Your task to perform on an android device: Go to location settings Image 0: 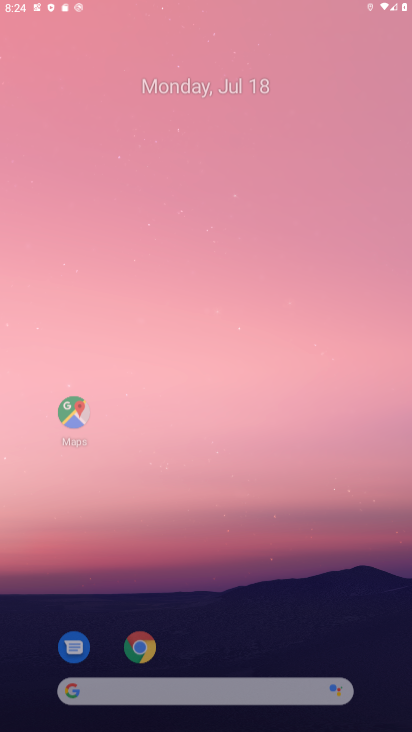
Step 0: press back button
Your task to perform on an android device: Go to location settings Image 1: 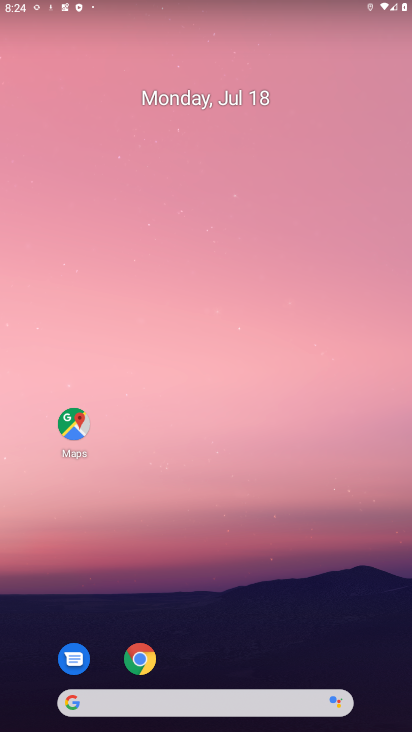
Step 1: drag from (237, 639) to (153, 340)
Your task to perform on an android device: Go to location settings Image 2: 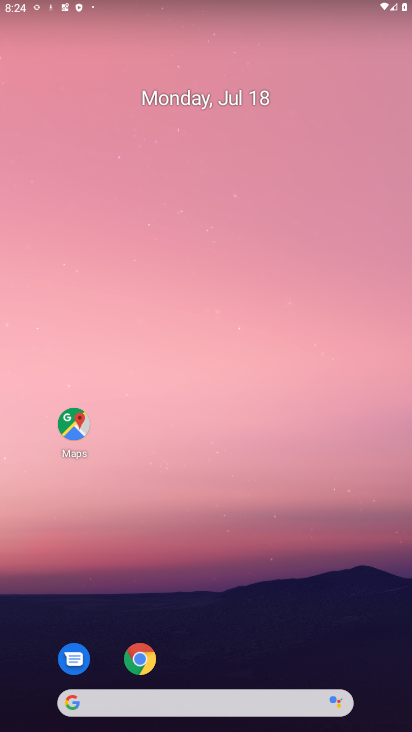
Step 2: drag from (226, 650) to (152, 224)
Your task to perform on an android device: Go to location settings Image 3: 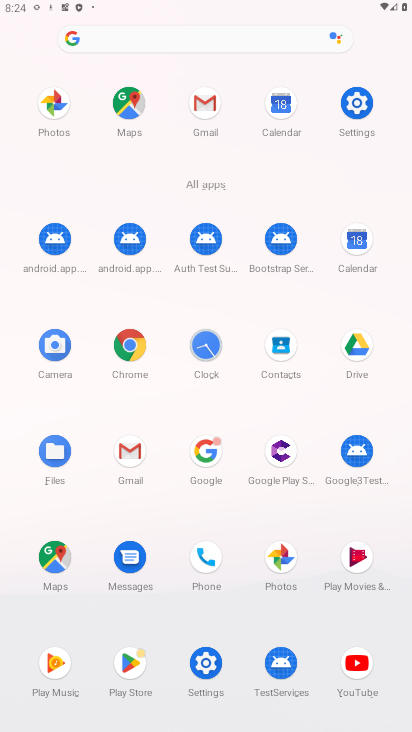
Step 3: drag from (259, 519) to (239, 378)
Your task to perform on an android device: Go to location settings Image 4: 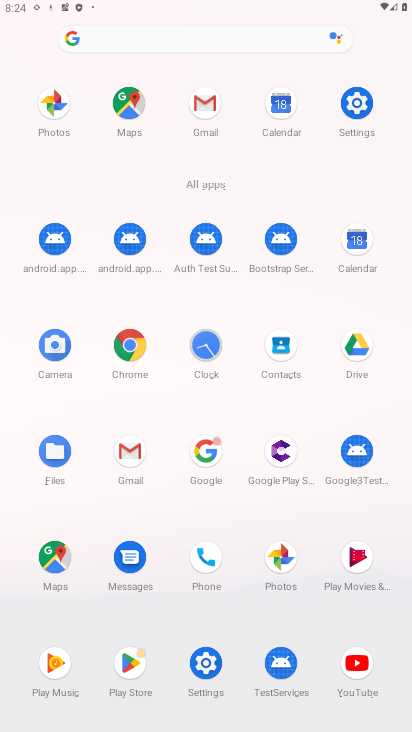
Step 4: click (203, 667)
Your task to perform on an android device: Go to location settings Image 5: 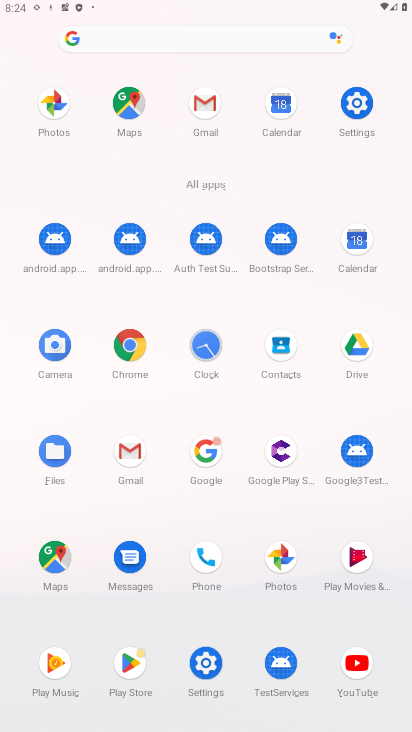
Step 5: click (198, 668)
Your task to perform on an android device: Go to location settings Image 6: 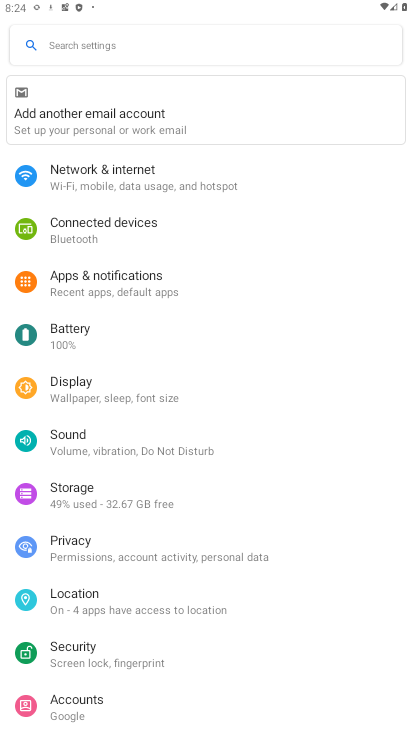
Step 6: click (105, 609)
Your task to perform on an android device: Go to location settings Image 7: 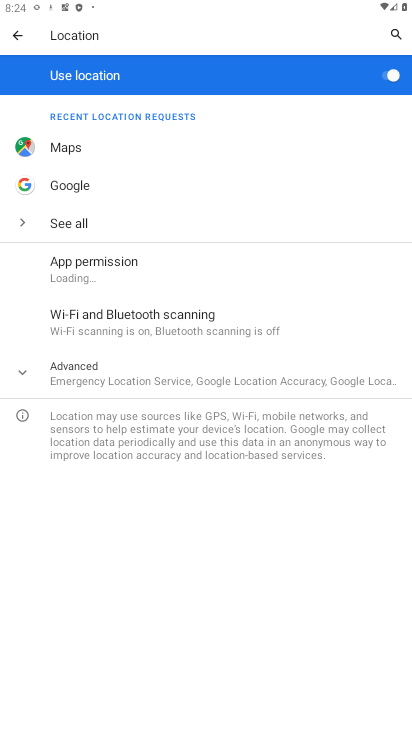
Step 7: click (91, 373)
Your task to perform on an android device: Go to location settings Image 8: 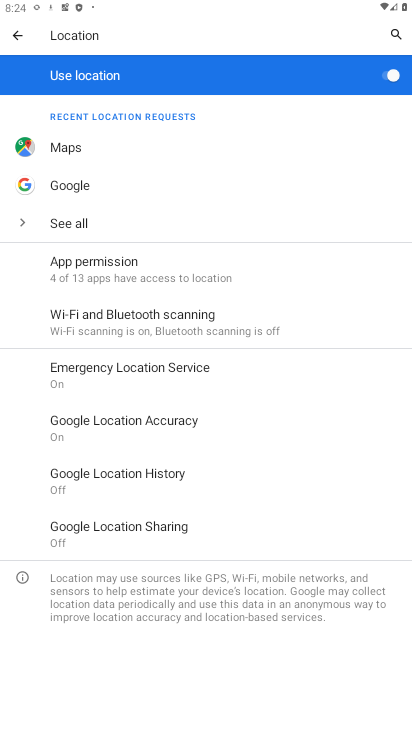
Step 8: task complete